Your task to perform on an android device: set an alarm Image 0: 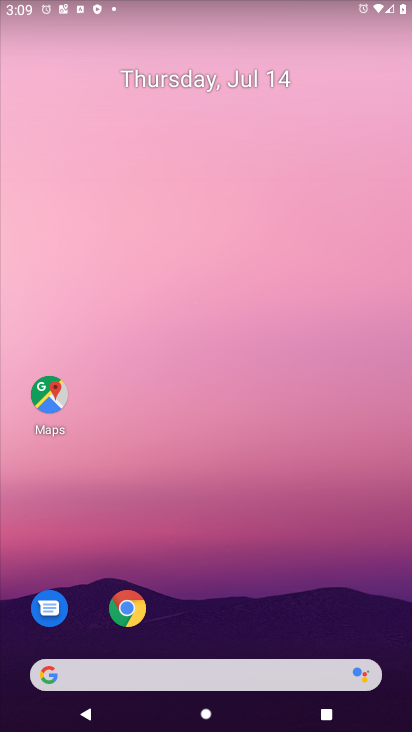
Step 0: drag from (308, 614) to (362, 29)
Your task to perform on an android device: set an alarm Image 1: 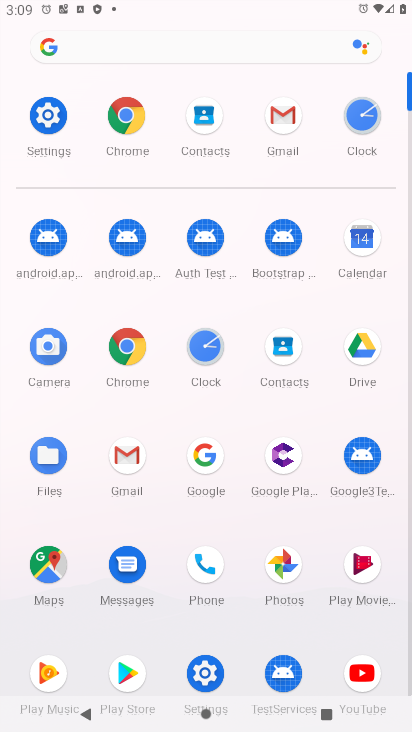
Step 1: click (200, 342)
Your task to perform on an android device: set an alarm Image 2: 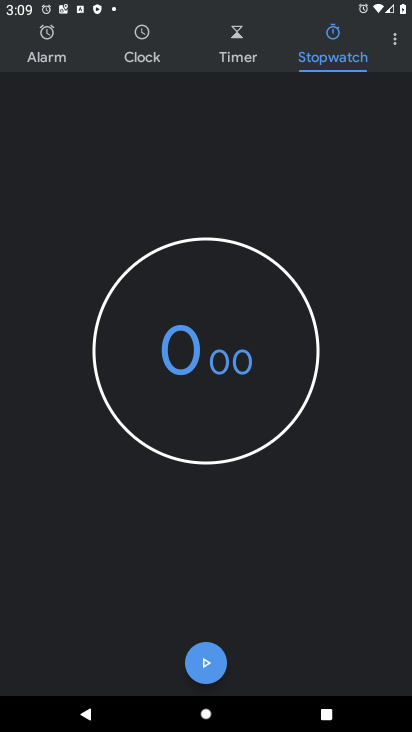
Step 2: click (50, 49)
Your task to perform on an android device: set an alarm Image 3: 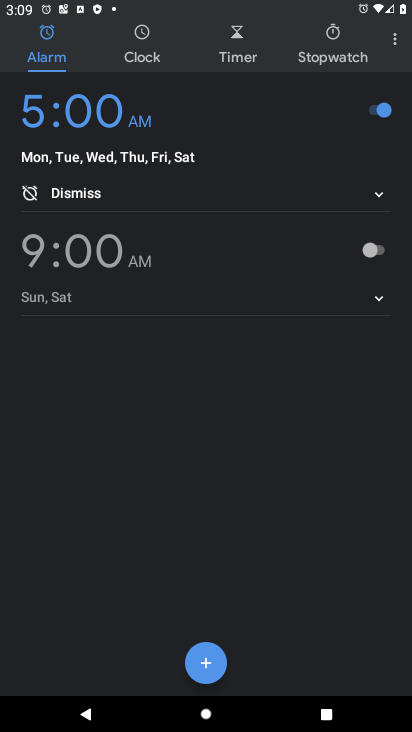
Step 3: click (50, 49)
Your task to perform on an android device: set an alarm Image 4: 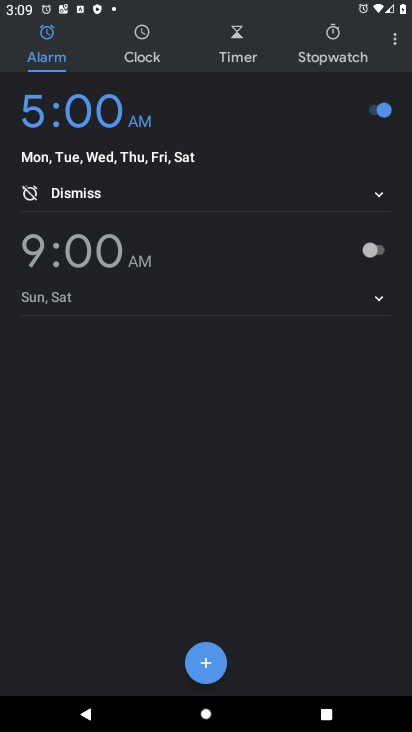
Step 4: click (50, 261)
Your task to perform on an android device: set an alarm Image 5: 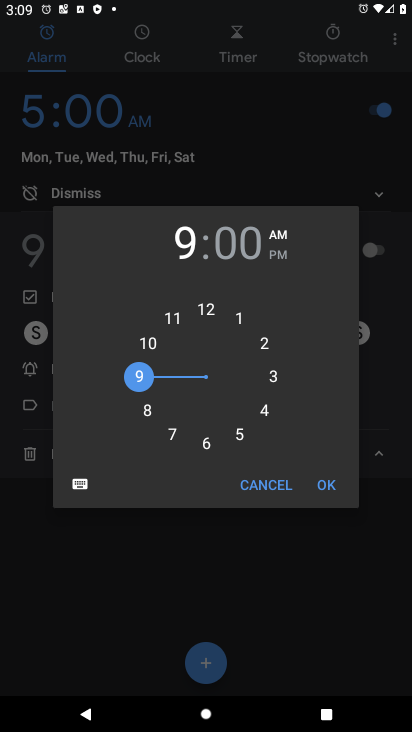
Step 5: click (240, 434)
Your task to perform on an android device: set an alarm Image 6: 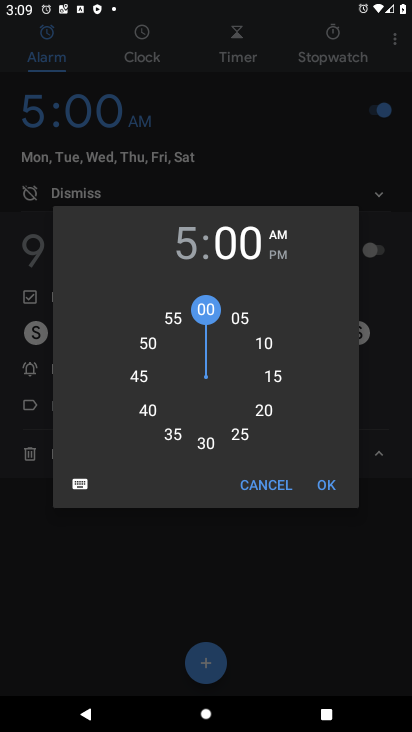
Step 6: click (202, 450)
Your task to perform on an android device: set an alarm Image 7: 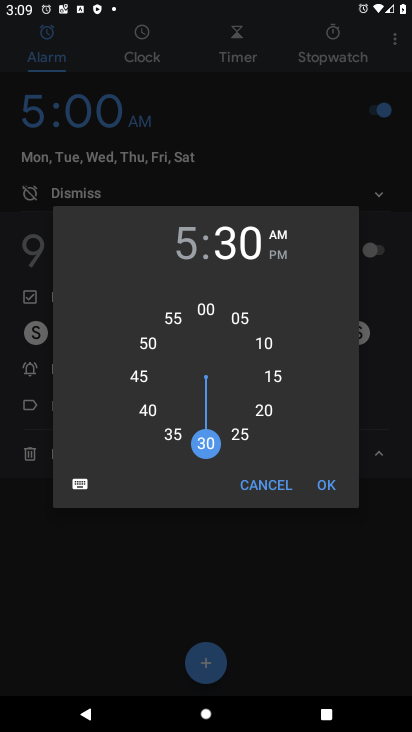
Step 7: click (332, 487)
Your task to perform on an android device: set an alarm Image 8: 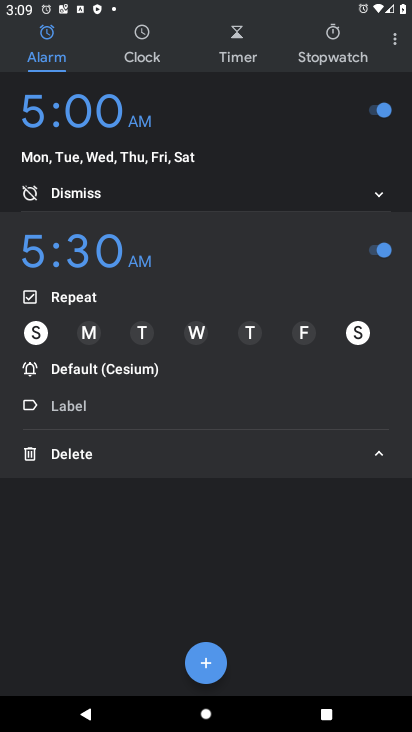
Step 8: click (28, 333)
Your task to perform on an android device: set an alarm Image 9: 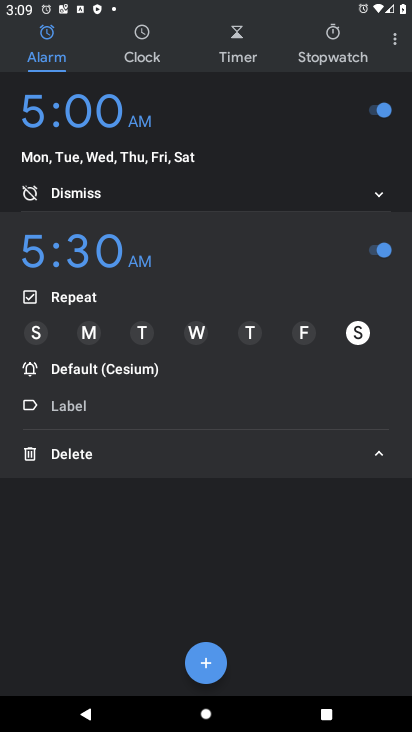
Step 9: click (87, 331)
Your task to perform on an android device: set an alarm Image 10: 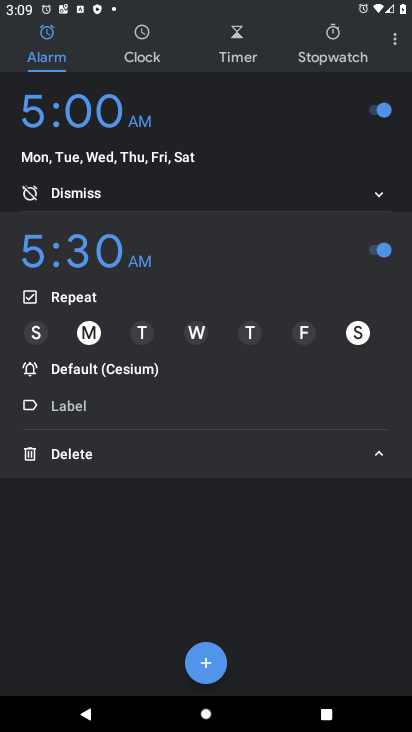
Step 10: click (141, 334)
Your task to perform on an android device: set an alarm Image 11: 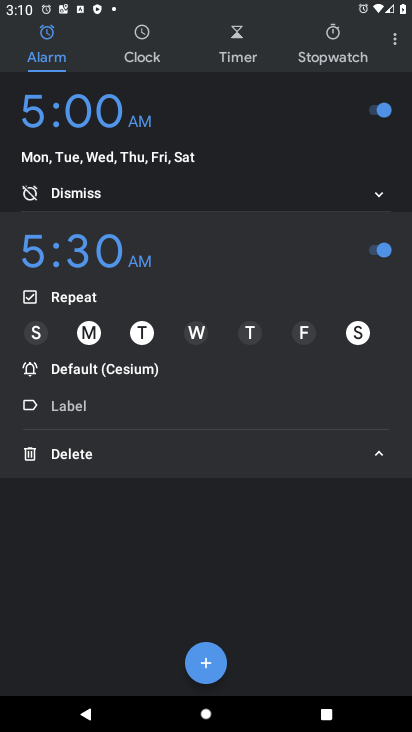
Step 11: click (195, 332)
Your task to perform on an android device: set an alarm Image 12: 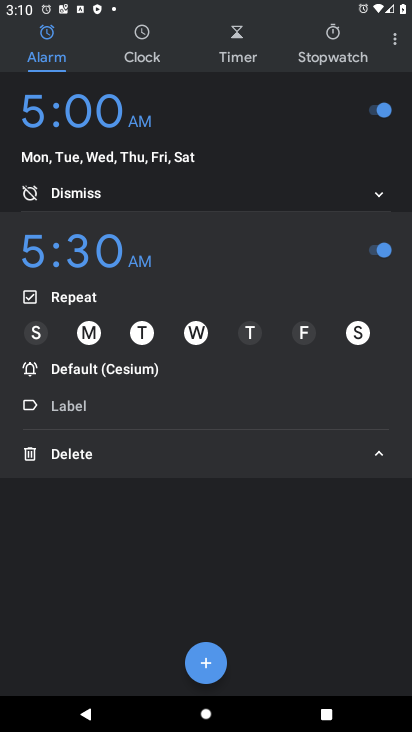
Step 12: click (245, 329)
Your task to perform on an android device: set an alarm Image 13: 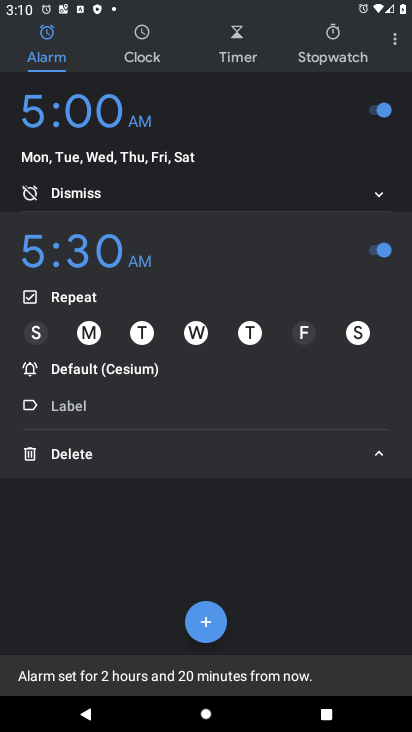
Step 13: click (304, 332)
Your task to perform on an android device: set an alarm Image 14: 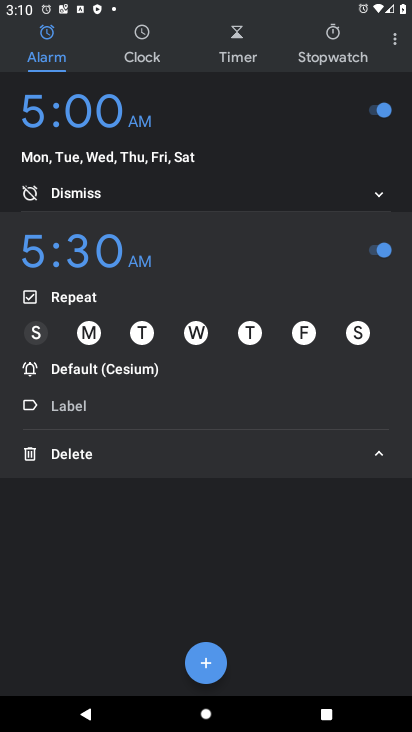
Step 14: click (378, 450)
Your task to perform on an android device: set an alarm Image 15: 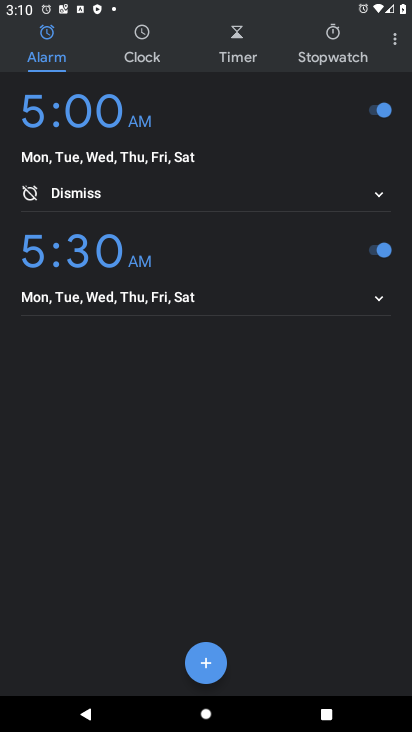
Step 15: task complete